Your task to perform on an android device: Turn on the flashlight Image 0: 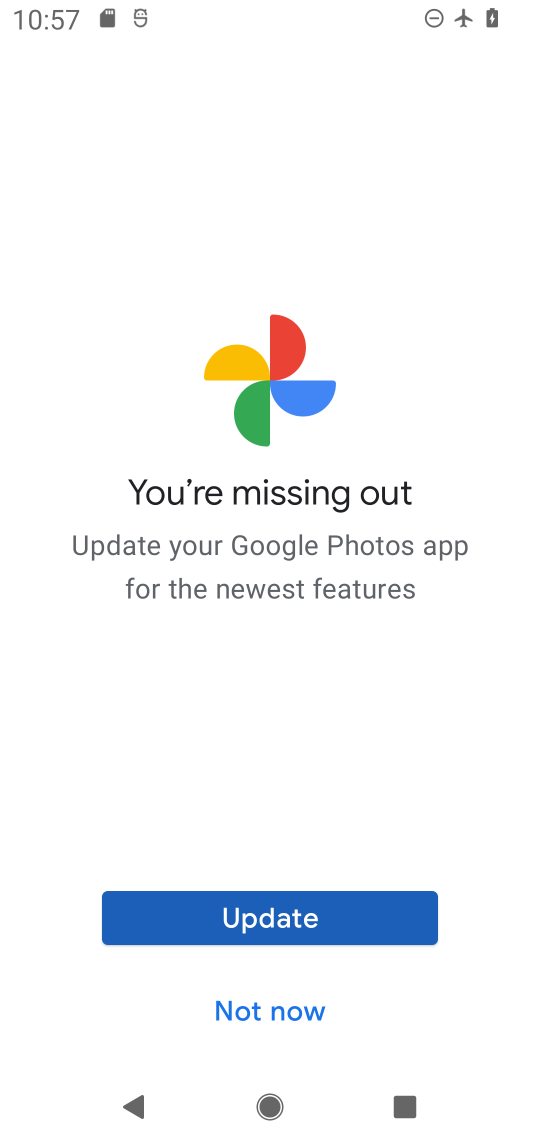
Step 0: press home button
Your task to perform on an android device: Turn on the flashlight Image 1: 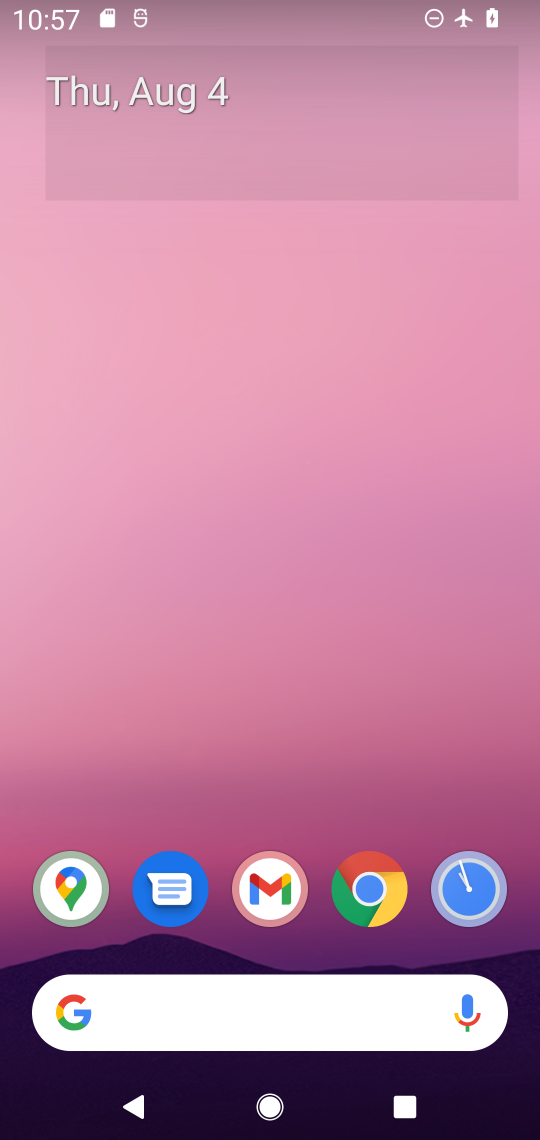
Step 1: task complete